Your task to perform on an android device: refresh tabs in the chrome app Image 0: 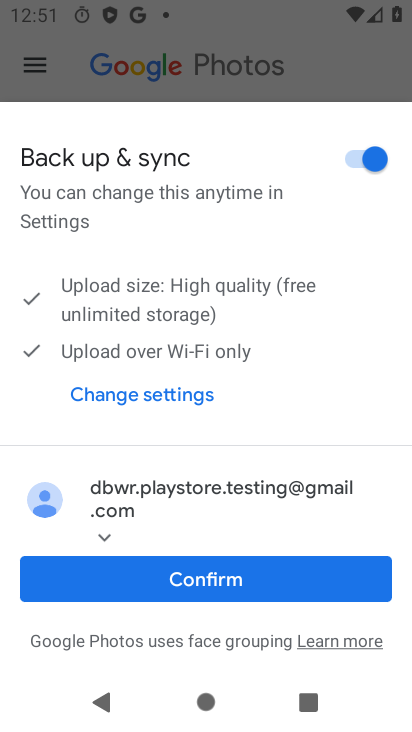
Step 0: press home button
Your task to perform on an android device: refresh tabs in the chrome app Image 1: 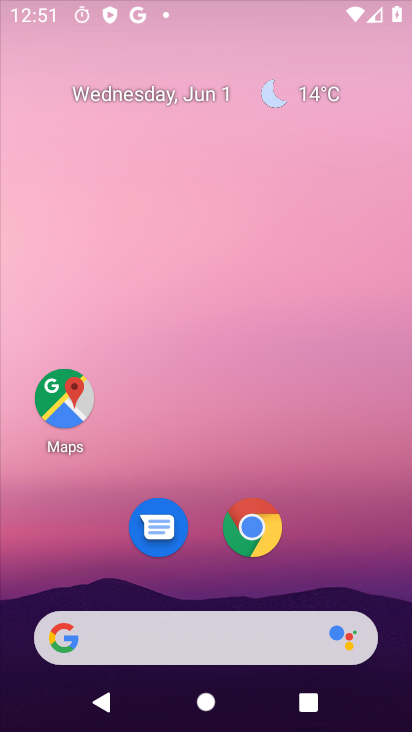
Step 1: drag from (203, 632) to (211, 138)
Your task to perform on an android device: refresh tabs in the chrome app Image 2: 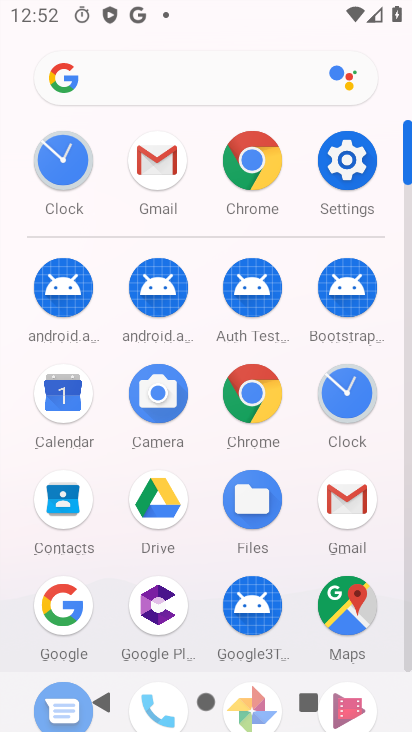
Step 2: click (260, 411)
Your task to perform on an android device: refresh tabs in the chrome app Image 3: 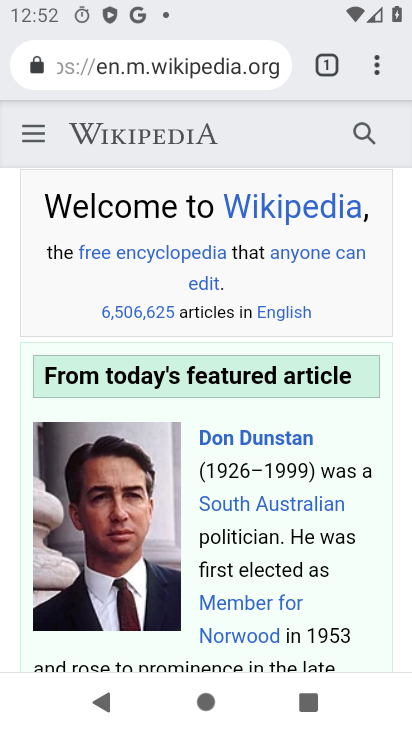
Step 3: click (387, 65)
Your task to perform on an android device: refresh tabs in the chrome app Image 4: 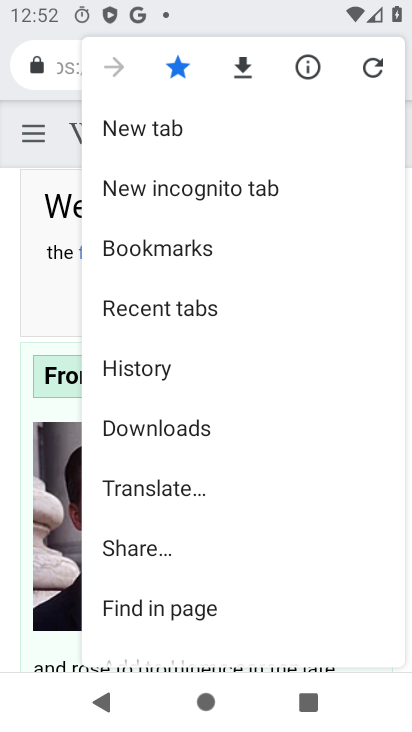
Step 4: click (372, 75)
Your task to perform on an android device: refresh tabs in the chrome app Image 5: 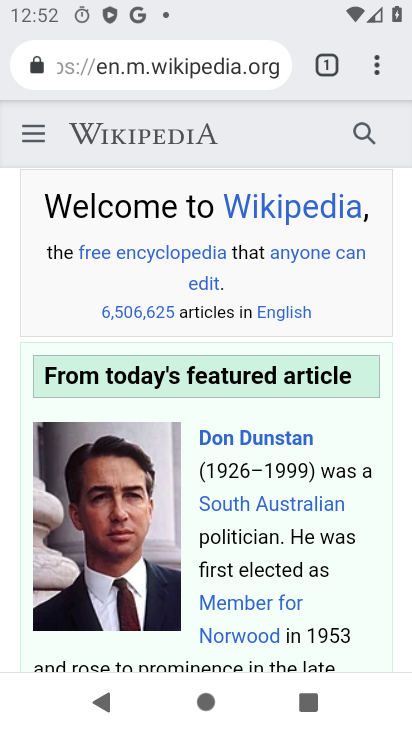
Step 5: task complete